Your task to perform on an android device: toggle sleep mode Image 0: 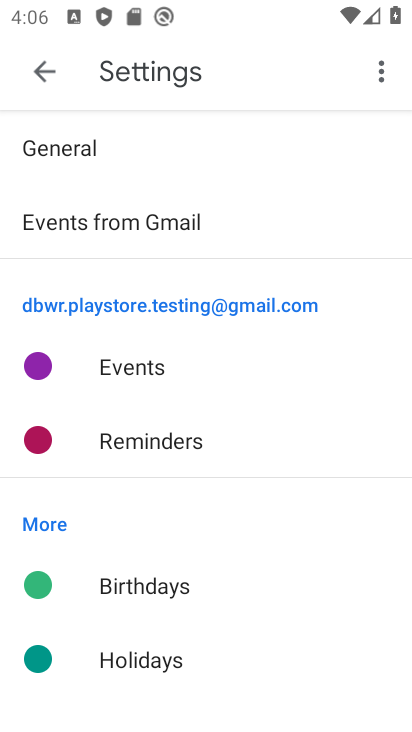
Step 0: press home button
Your task to perform on an android device: toggle sleep mode Image 1: 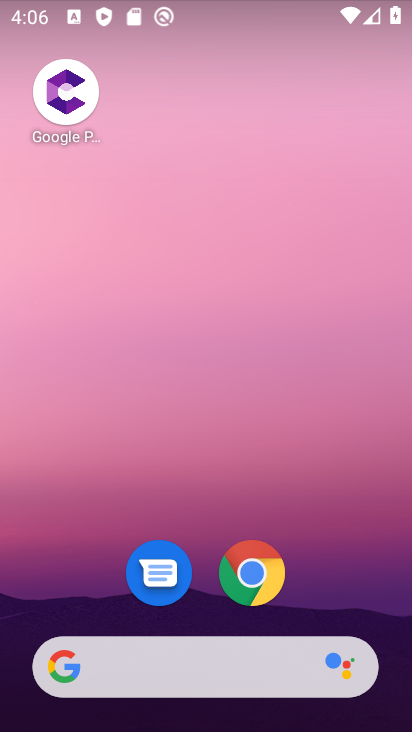
Step 1: drag from (273, 603) to (308, 3)
Your task to perform on an android device: toggle sleep mode Image 2: 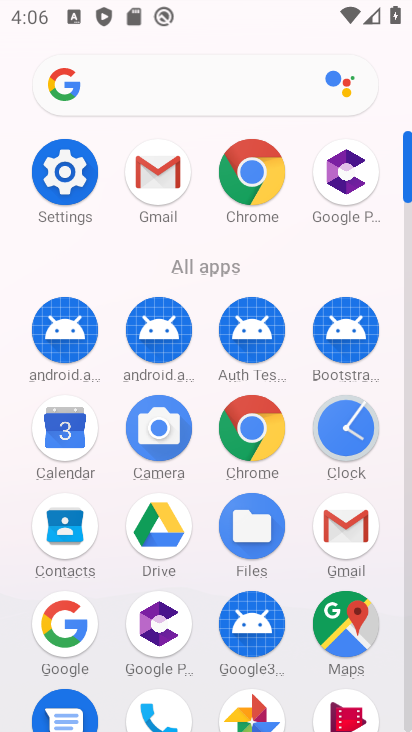
Step 2: click (54, 170)
Your task to perform on an android device: toggle sleep mode Image 3: 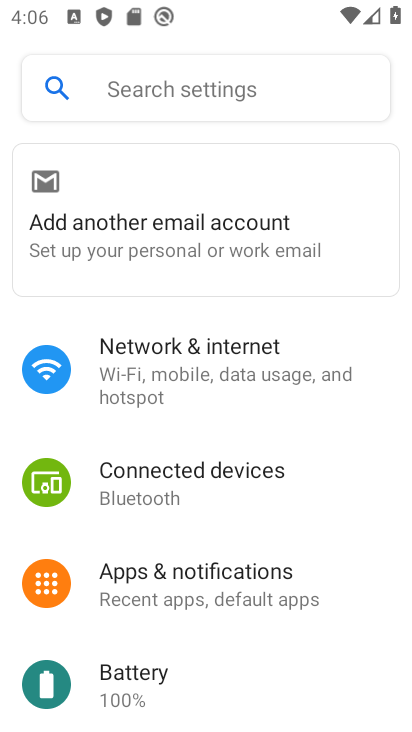
Step 3: drag from (238, 656) to (308, 199)
Your task to perform on an android device: toggle sleep mode Image 4: 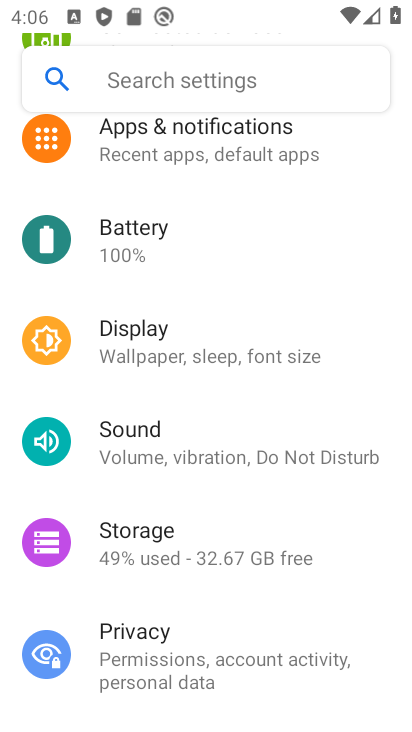
Step 4: click (214, 357)
Your task to perform on an android device: toggle sleep mode Image 5: 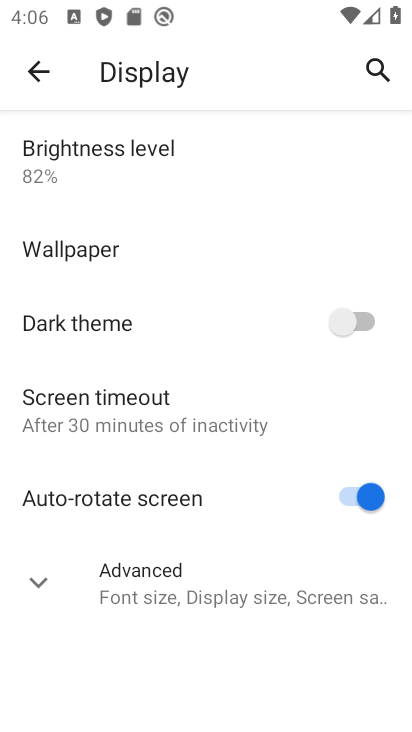
Step 5: task complete